Your task to perform on an android device: toggle pop-ups in chrome Image 0: 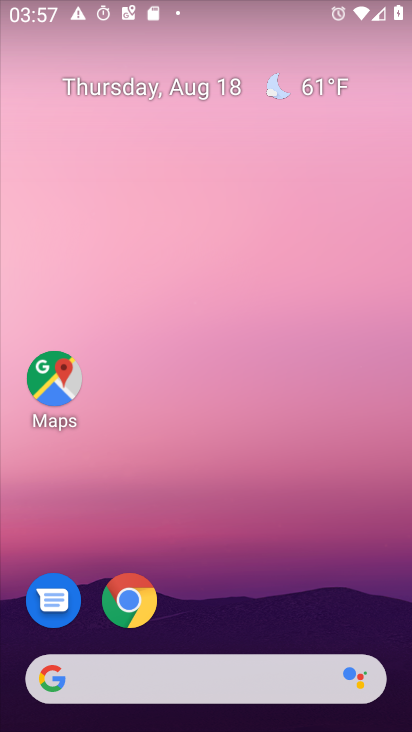
Step 0: press home button
Your task to perform on an android device: toggle pop-ups in chrome Image 1: 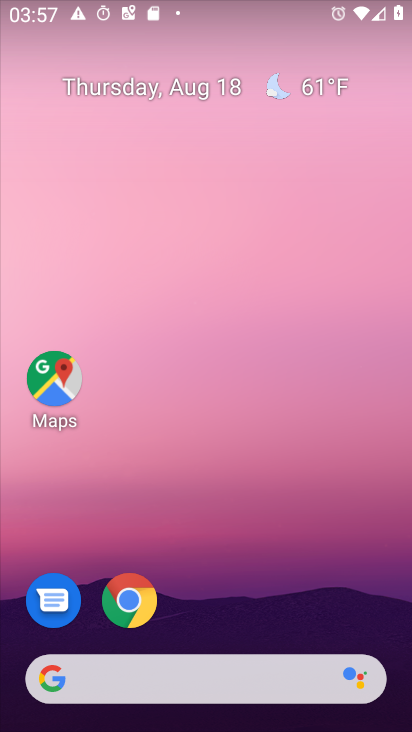
Step 1: click (126, 607)
Your task to perform on an android device: toggle pop-ups in chrome Image 2: 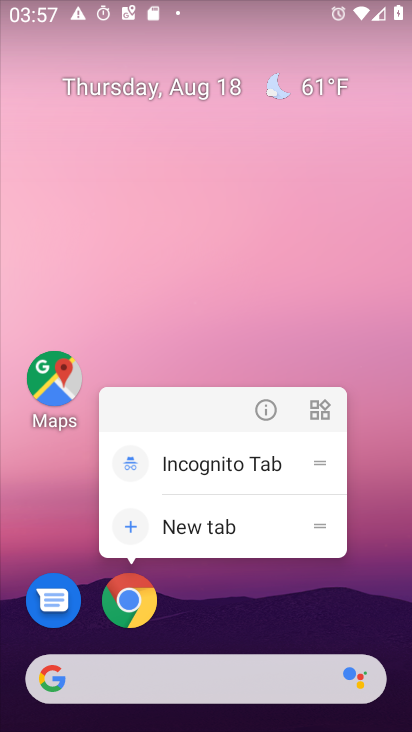
Step 2: click (126, 607)
Your task to perform on an android device: toggle pop-ups in chrome Image 3: 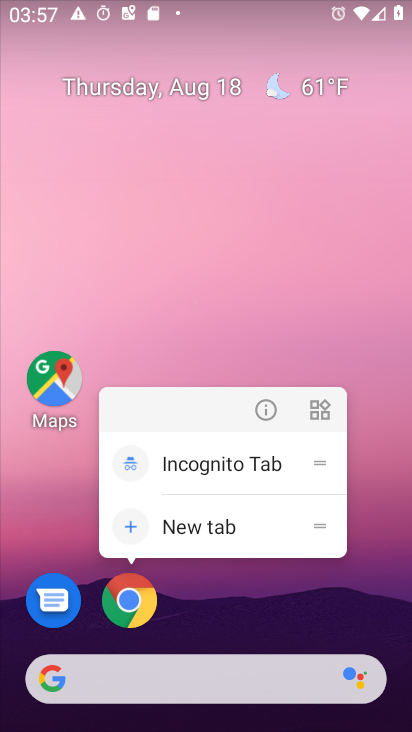
Step 3: click (126, 607)
Your task to perform on an android device: toggle pop-ups in chrome Image 4: 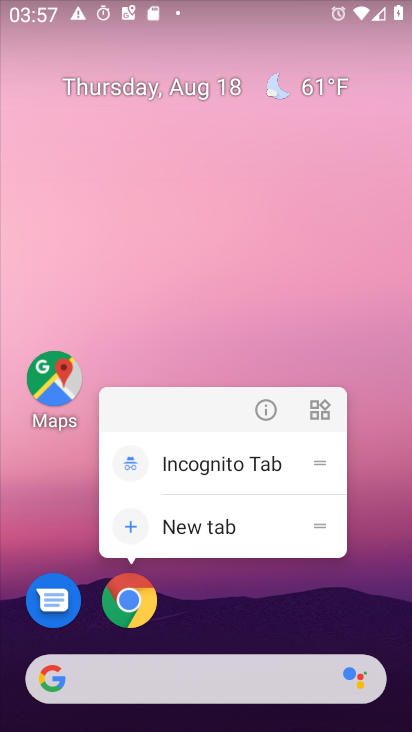
Step 4: click (126, 607)
Your task to perform on an android device: toggle pop-ups in chrome Image 5: 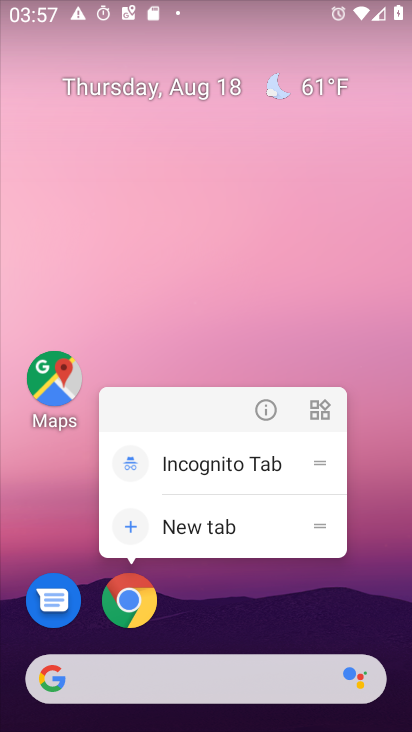
Step 5: click (126, 607)
Your task to perform on an android device: toggle pop-ups in chrome Image 6: 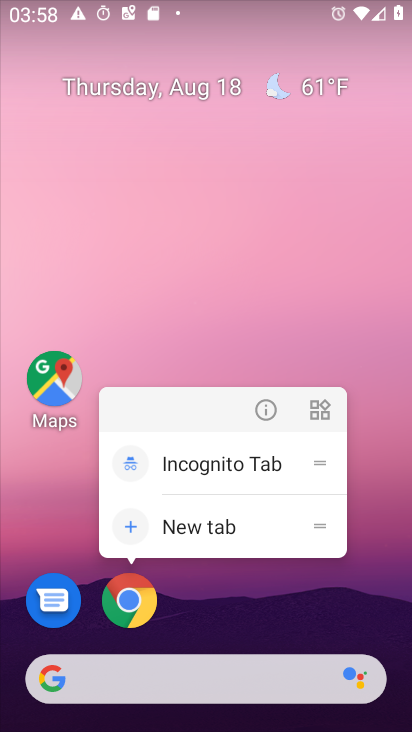
Step 6: click (126, 607)
Your task to perform on an android device: toggle pop-ups in chrome Image 7: 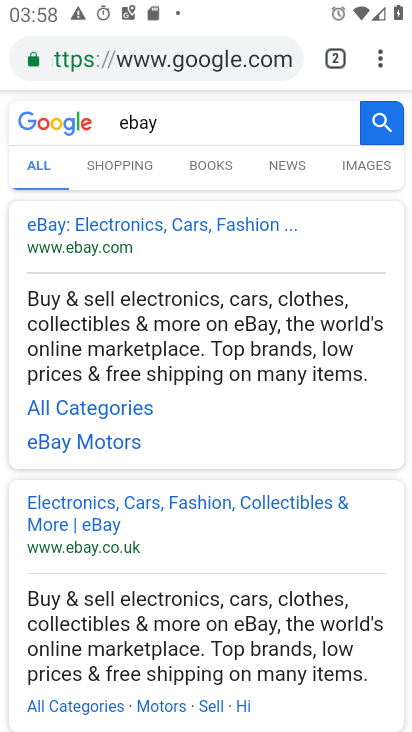
Step 7: drag from (386, 58) to (191, 647)
Your task to perform on an android device: toggle pop-ups in chrome Image 8: 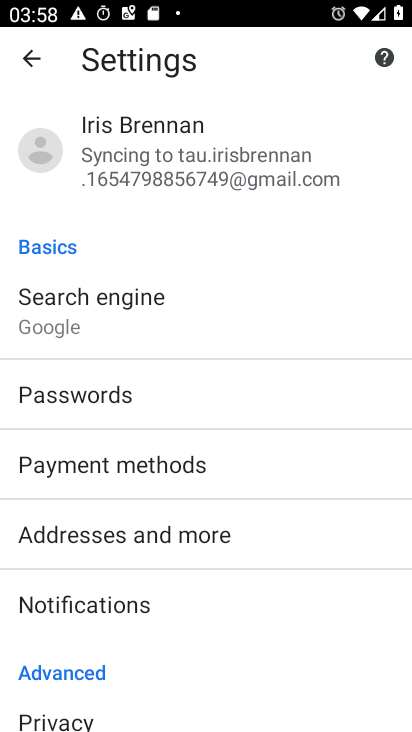
Step 8: drag from (245, 696) to (243, 258)
Your task to perform on an android device: toggle pop-ups in chrome Image 9: 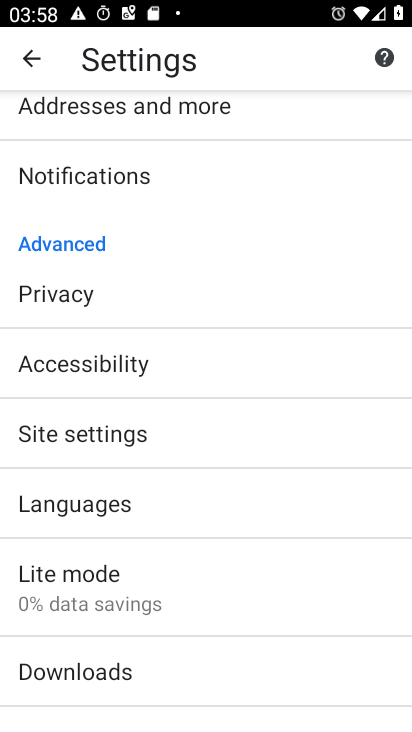
Step 9: click (86, 436)
Your task to perform on an android device: toggle pop-ups in chrome Image 10: 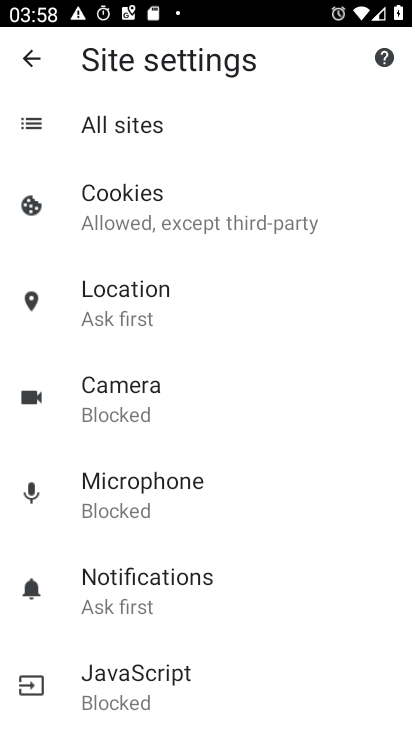
Step 10: drag from (333, 665) to (315, 365)
Your task to perform on an android device: toggle pop-ups in chrome Image 11: 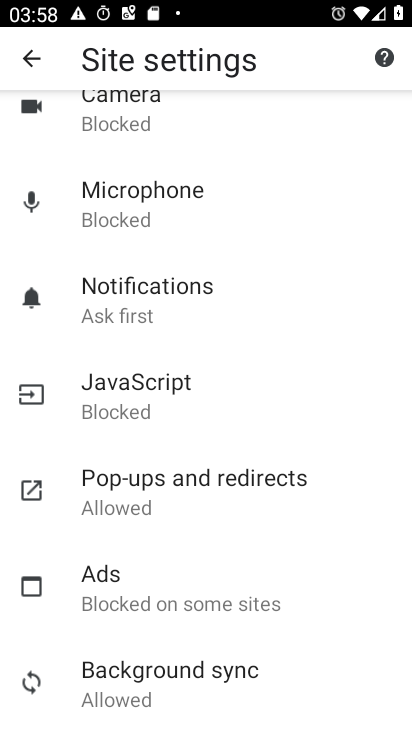
Step 11: click (172, 490)
Your task to perform on an android device: toggle pop-ups in chrome Image 12: 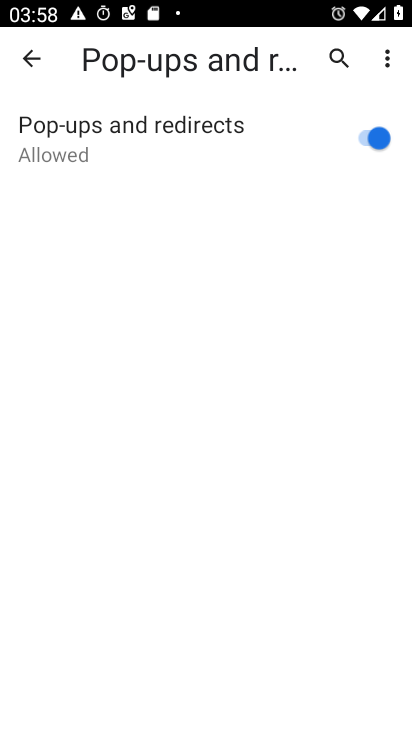
Step 12: click (387, 137)
Your task to perform on an android device: toggle pop-ups in chrome Image 13: 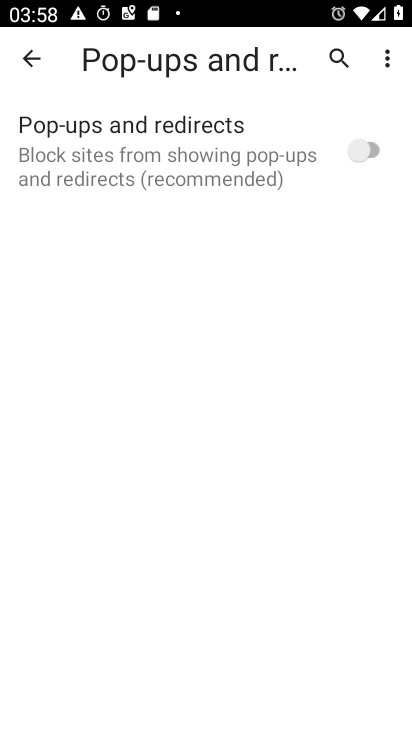
Step 13: task complete